Your task to perform on an android device: Go to network settings Image 0: 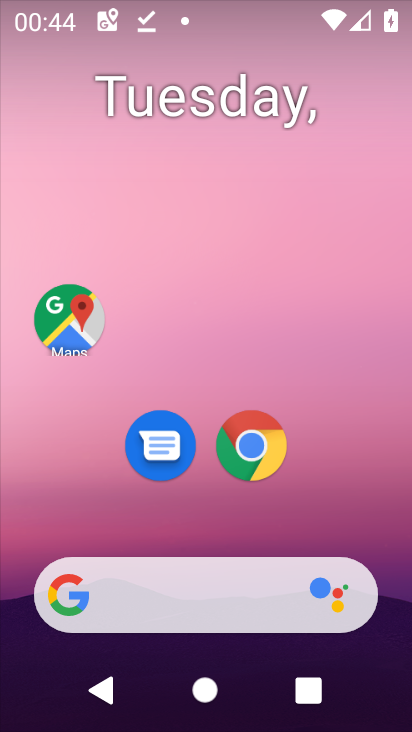
Step 0: drag from (310, 517) to (225, 124)
Your task to perform on an android device: Go to network settings Image 1: 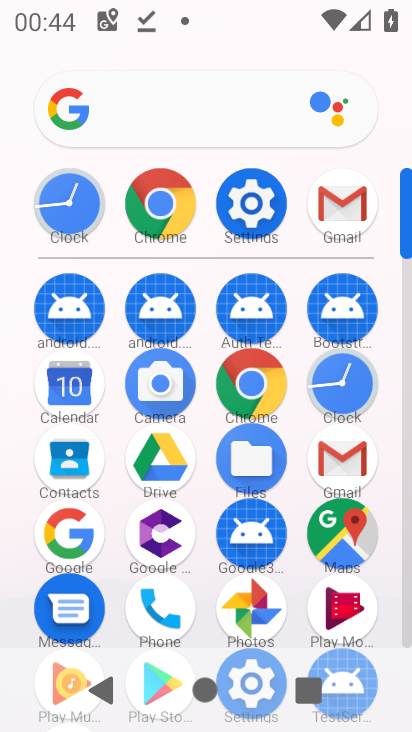
Step 1: click (251, 199)
Your task to perform on an android device: Go to network settings Image 2: 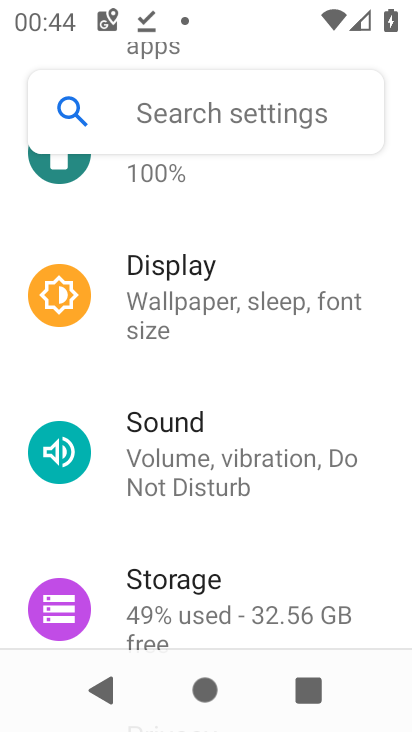
Step 2: drag from (196, 227) to (239, 628)
Your task to perform on an android device: Go to network settings Image 3: 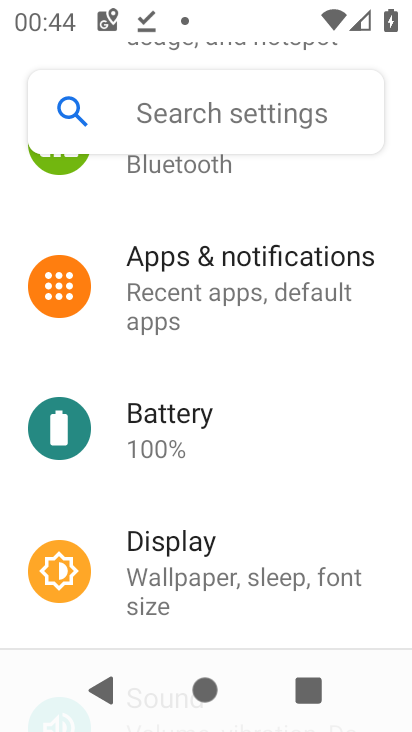
Step 3: drag from (227, 208) to (311, 701)
Your task to perform on an android device: Go to network settings Image 4: 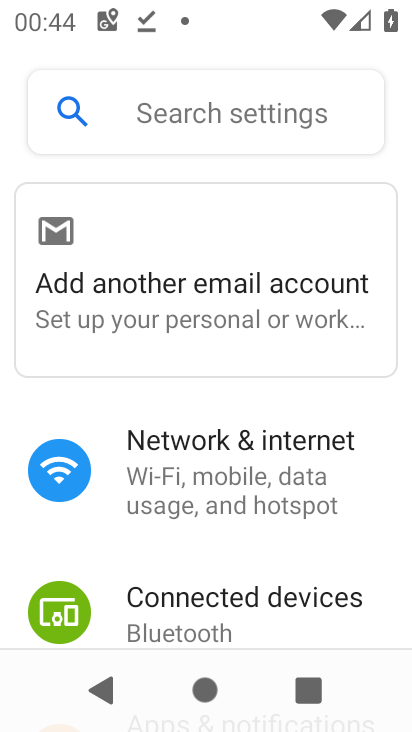
Step 4: click (227, 452)
Your task to perform on an android device: Go to network settings Image 5: 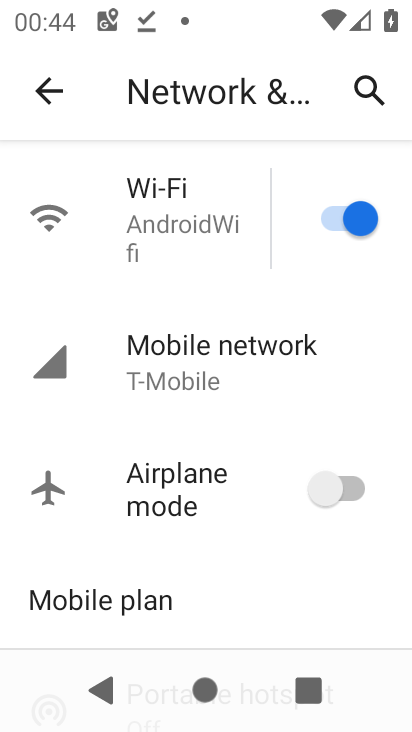
Step 5: task complete